Your task to perform on an android device: see sites visited before in the chrome app Image 0: 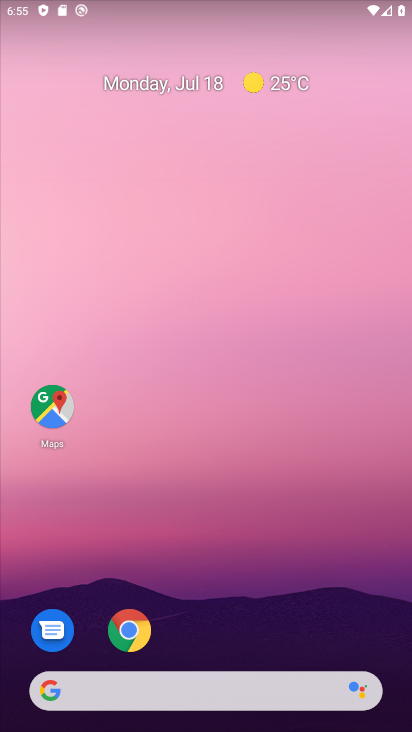
Step 0: click (146, 626)
Your task to perform on an android device: see sites visited before in the chrome app Image 1: 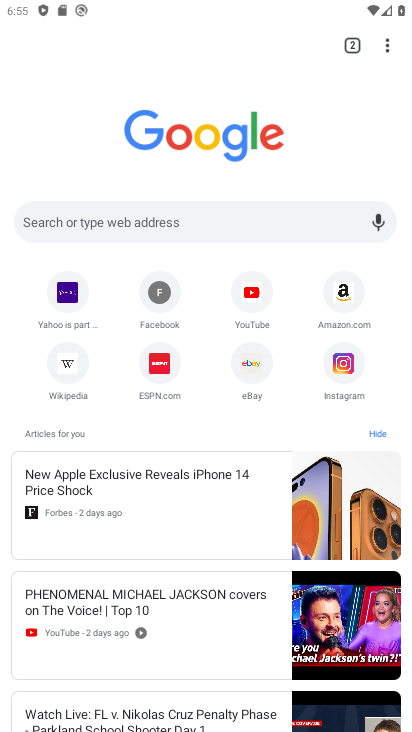
Step 1: click (388, 50)
Your task to perform on an android device: see sites visited before in the chrome app Image 2: 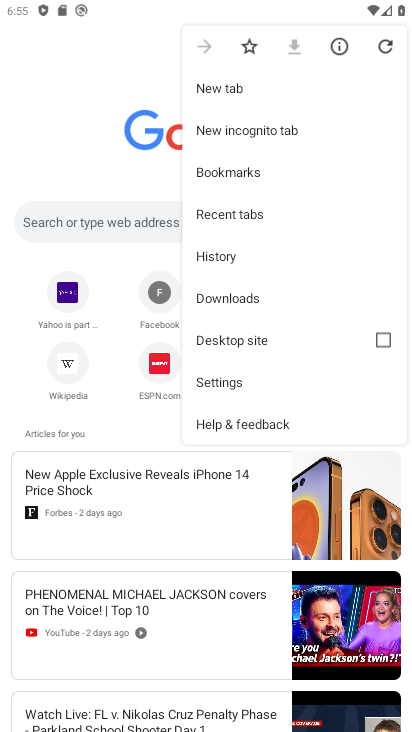
Step 2: click (214, 383)
Your task to perform on an android device: see sites visited before in the chrome app Image 3: 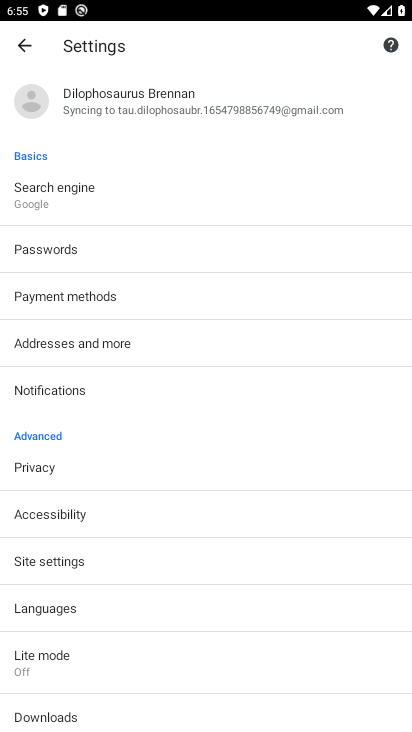
Step 3: click (61, 560)
Your task to perform on an android device: see sites visited before in the chrome app Image 4: 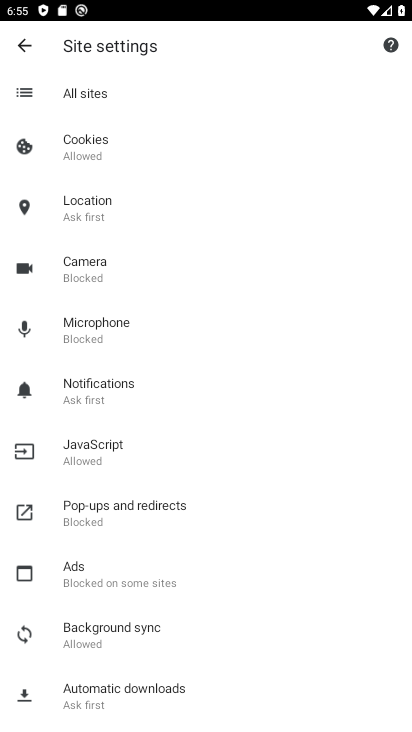
Step 4: click (83, 94)
Your task to perform on an android device: see sites visited before in the chrome app Image 5: 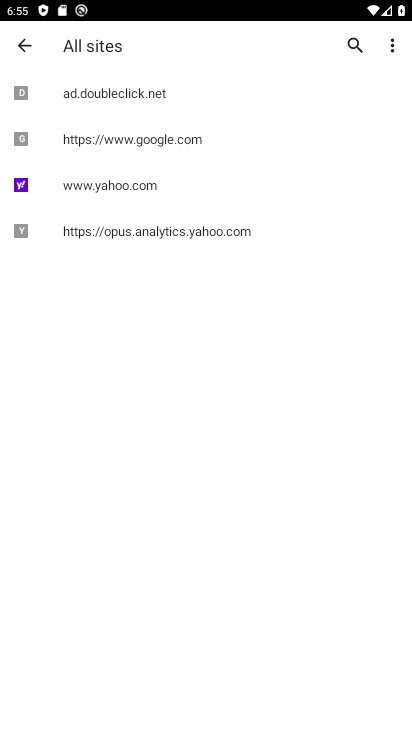
Step 5: click (111, 142)
Your task to perform on an android device: see sites visited before in the chrome app Image 6: 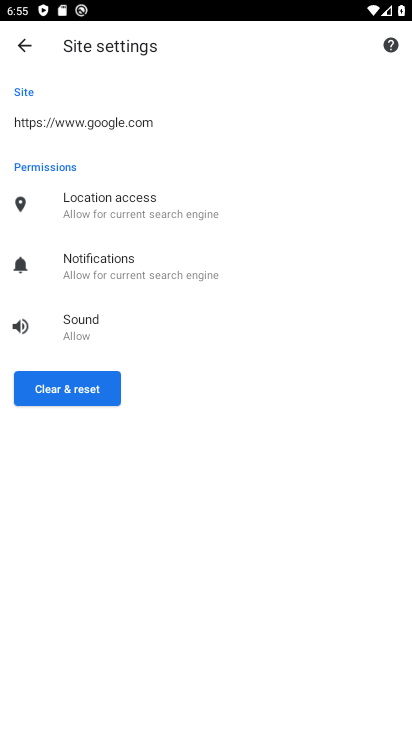
Step 6: task complete